Your task to perform on an android device: all mails in gmail Image 0: 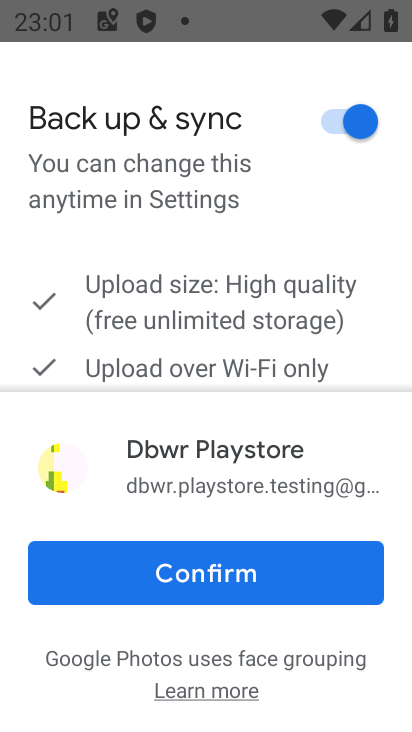
Step 0: press home button
Your task to perform on an android device: all mails in gmail Image 1: 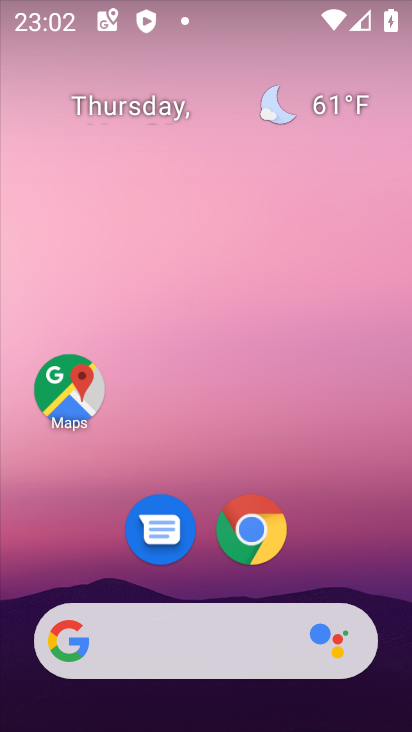
Step 1: drag from (360, 564) to (335, 230)
Your task to perform on an android device: all mails in gmail Image 2: 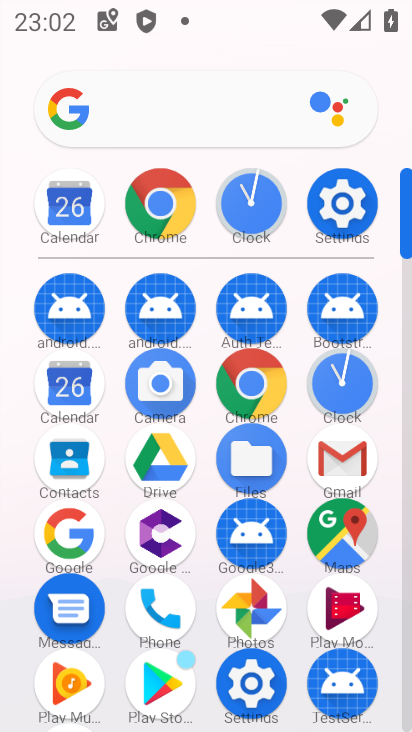
Step 2: click (349, 452)
Your task to perform on an android device: all mails in gmail Image 3: 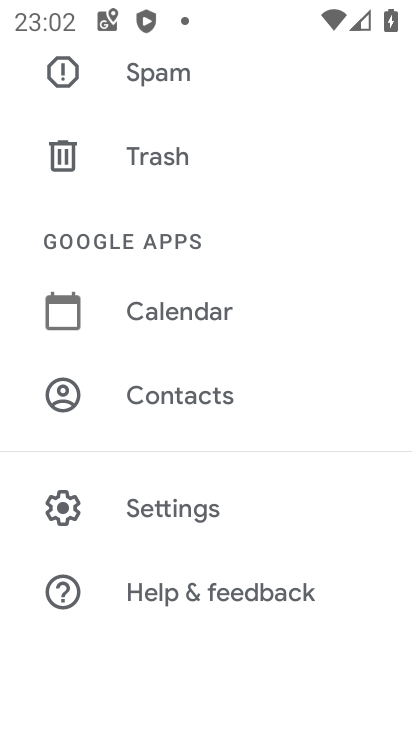
Step 3: drag from (251, 167) to (231, 353)
Your task to perform on an android device: all mails in gmail Image 4: 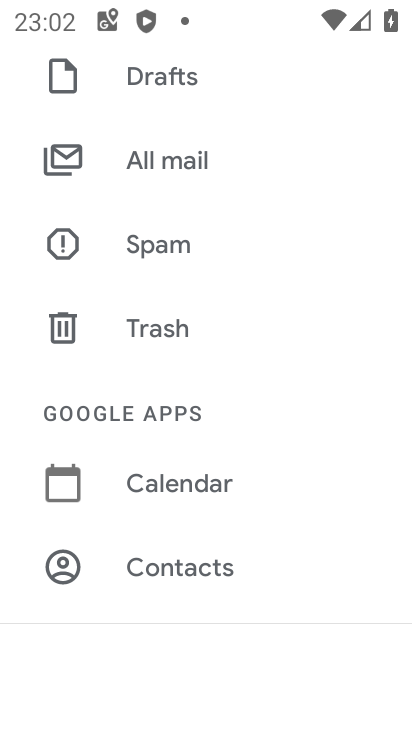
Step 4: click (229, 182)
Your task to perform on an android device: all mails in gmail Image 5: 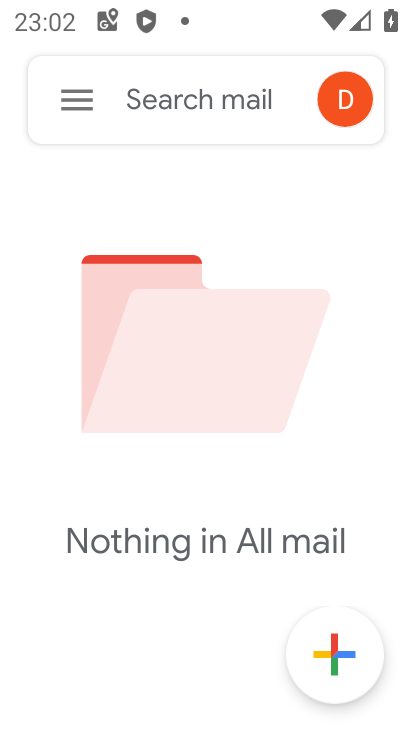
Step 5: task complete